Your task to perform on an android device: Open the calendar app, open the side menu, and click the "Day" option Image 0: 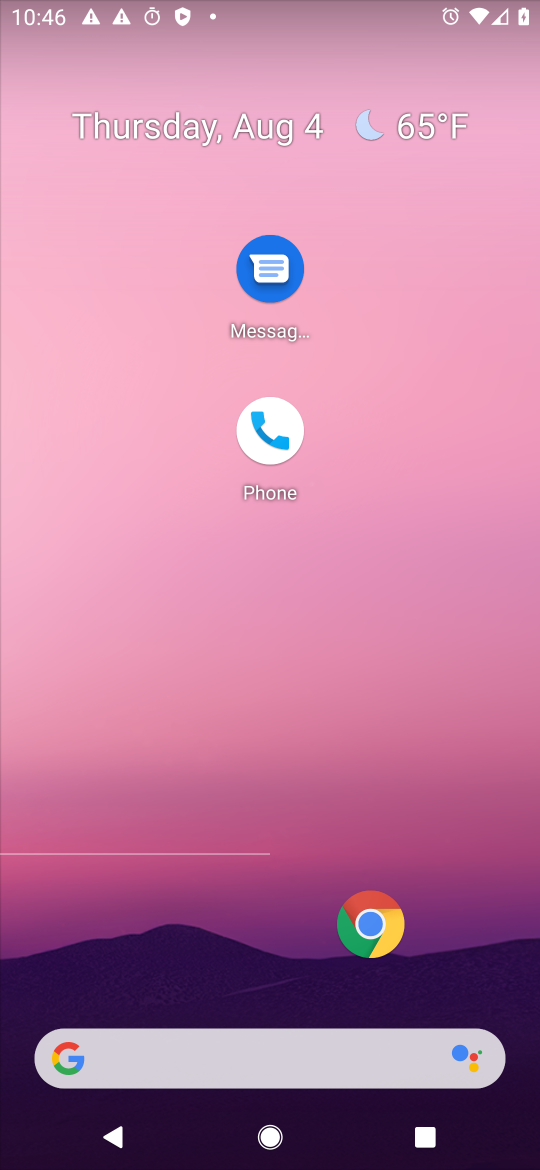
Step 0: drag from (335, 764) to (459, 369)
Your task to perform on an android device: Open the calendar app, open the side menu, and click the "Day" option Image 1: 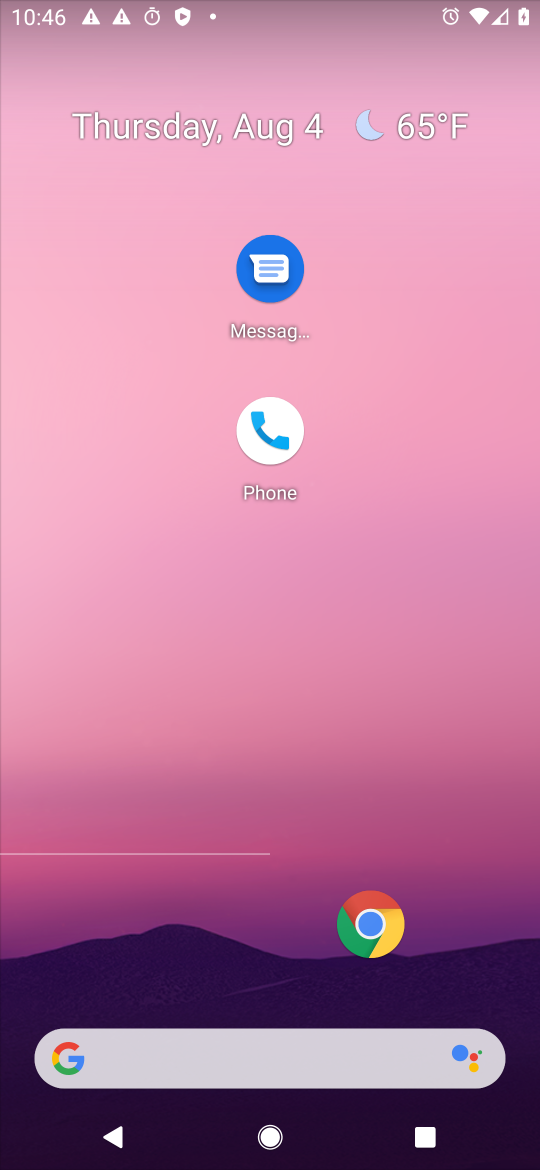
Step 1: click (349, 549)
Your task to perform on an android device: Open the calendar app, open the side menu, and click the "Day" option Image 2: 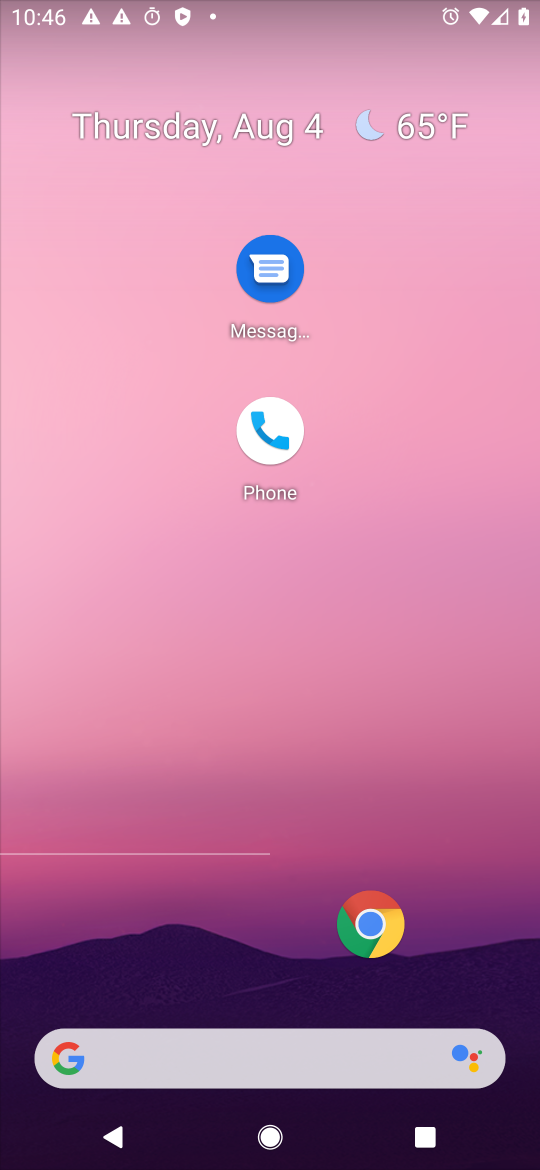
Step 2: drag from (286, 698) to (296, 338)
Your task to perform on an android device: Open the calendar app, open the side menu, and click the "Day" option Image 3: 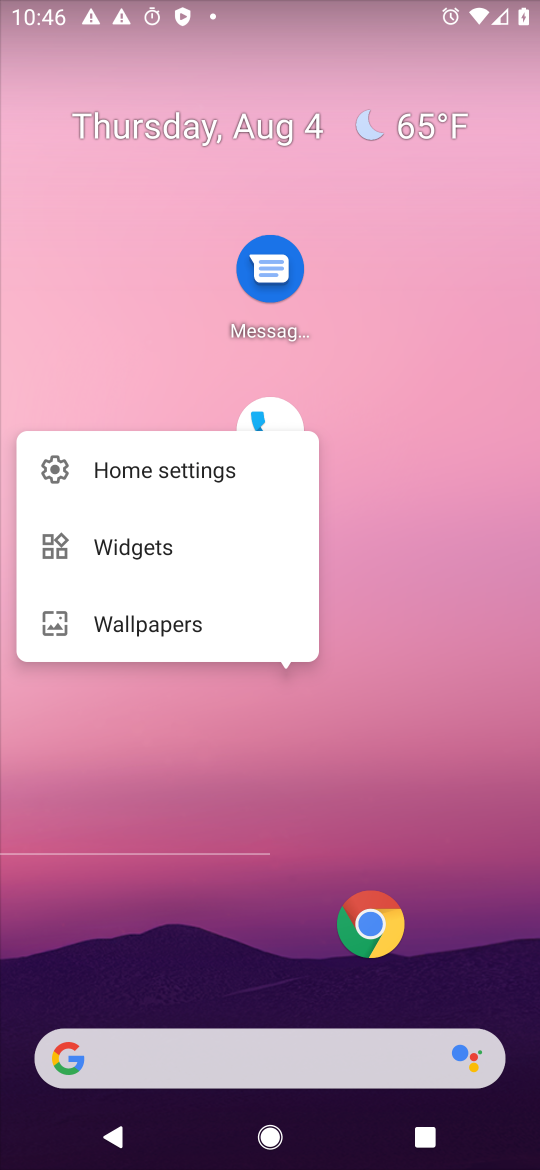
Step 3: click (417, 264)
Your task to perform on an android device: Open the calendar app, open the side menu, and click the "Day" option Image 4: 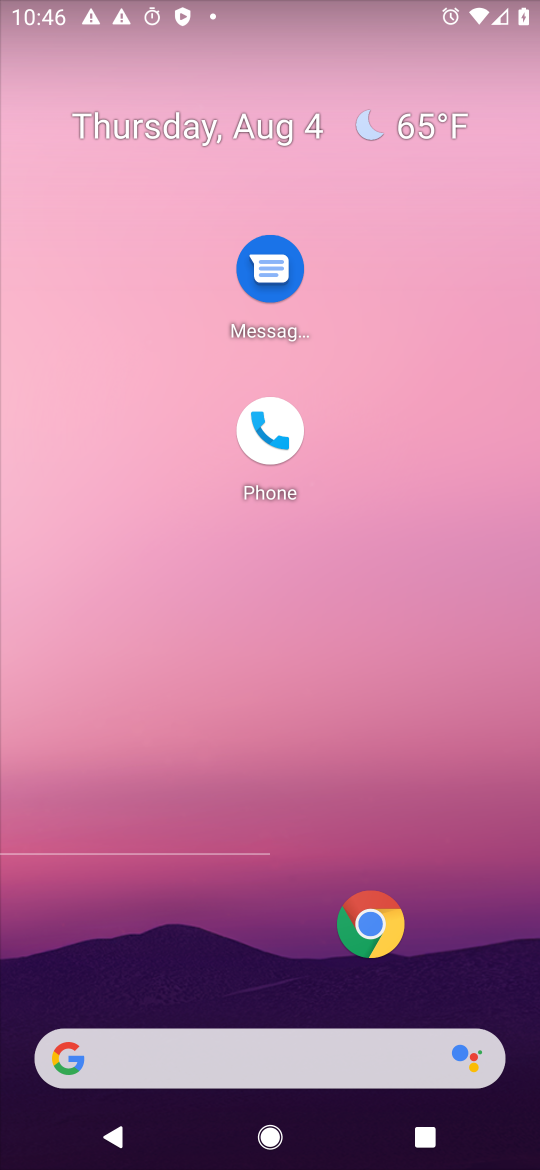
Step 4: drag from (203, 953) to (326, 156)
Your task to perform on an android device: Open the calendar app, open the side menu, and click the "Day" option Image 5: 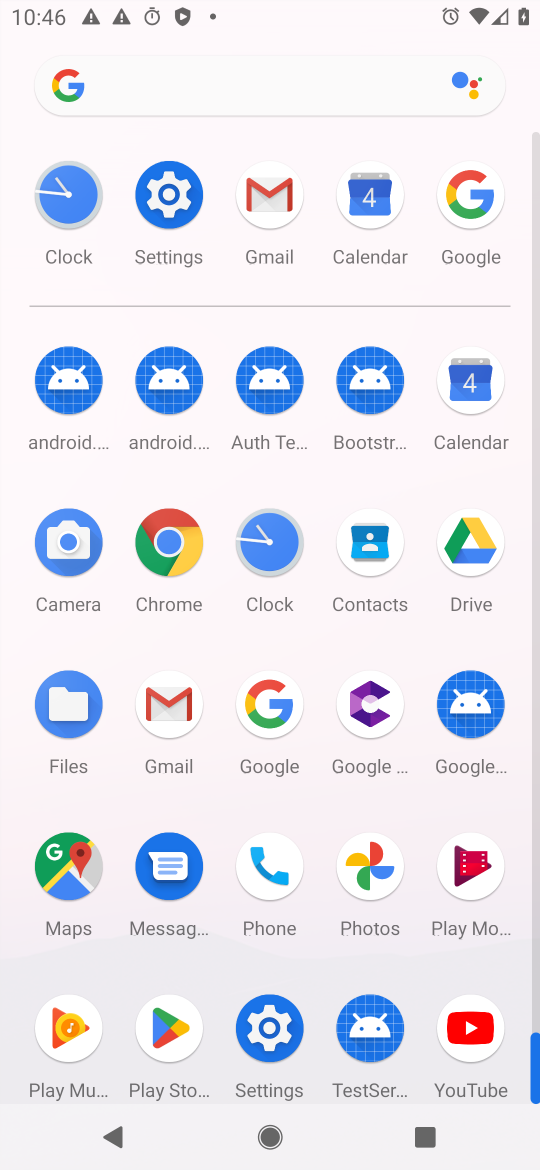
Step 5: click (271, 1017)
Your task to perform on an android device: Open the calendar app, open the side menu, and click the "Day" option Image 6: 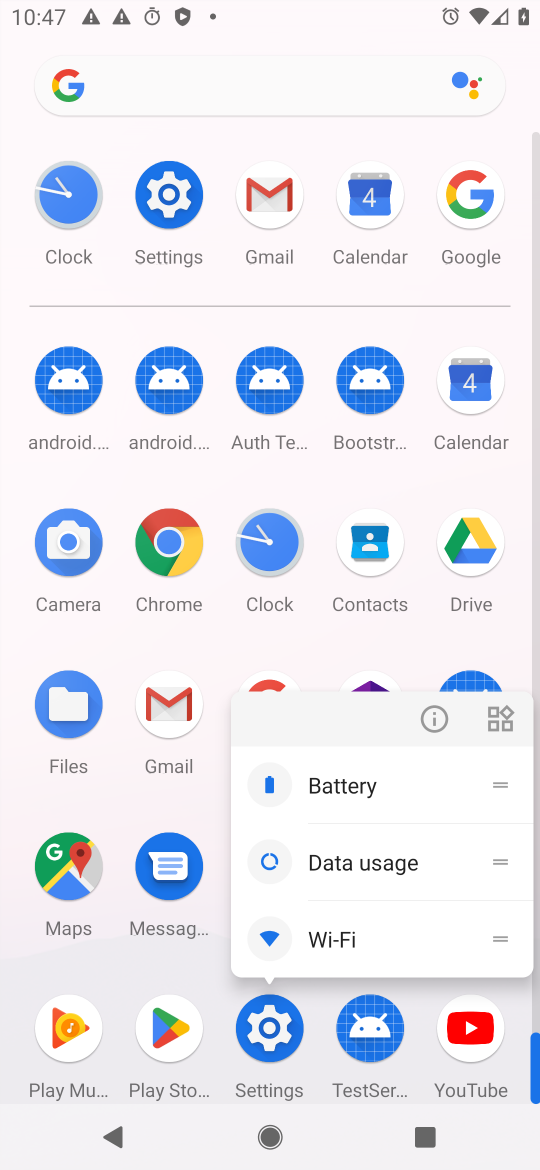
Step 6: click (439, 719)
Your task to perform on an android device: Open the calendar app, open the side menu, and click the "Day" option Image 7: 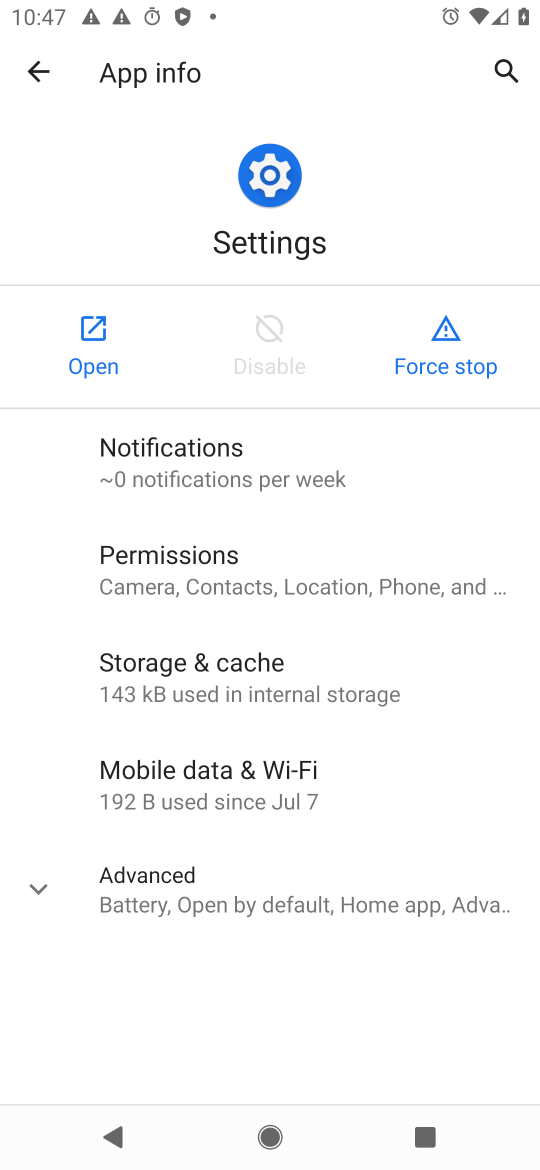
Step 7: click (92, 335)
Your task to perform on an android device: Open the calendar app, open the side menu, and click the "Day" option Image 8: 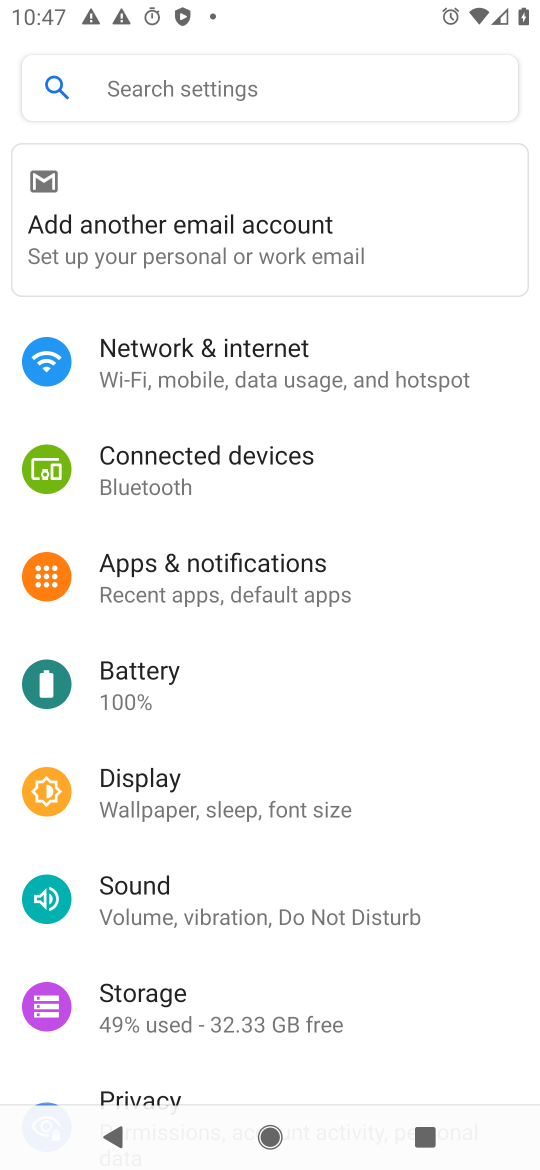
Step 8: press home button
Your task to perform on an android device: Open the calendar app, open the side menu, and click the "Day" option Image 9: 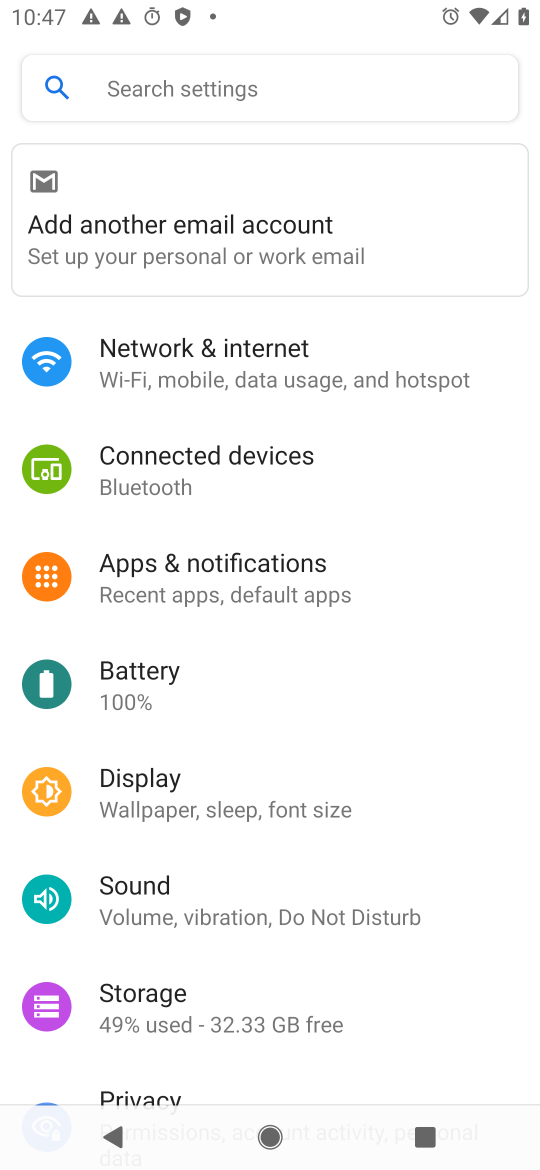
Step 9: drag from (269, 742) to (433, 180)
Your task to perform on an android device: Open the calendar app, open the side menu, and click the "Day" option Image 10: 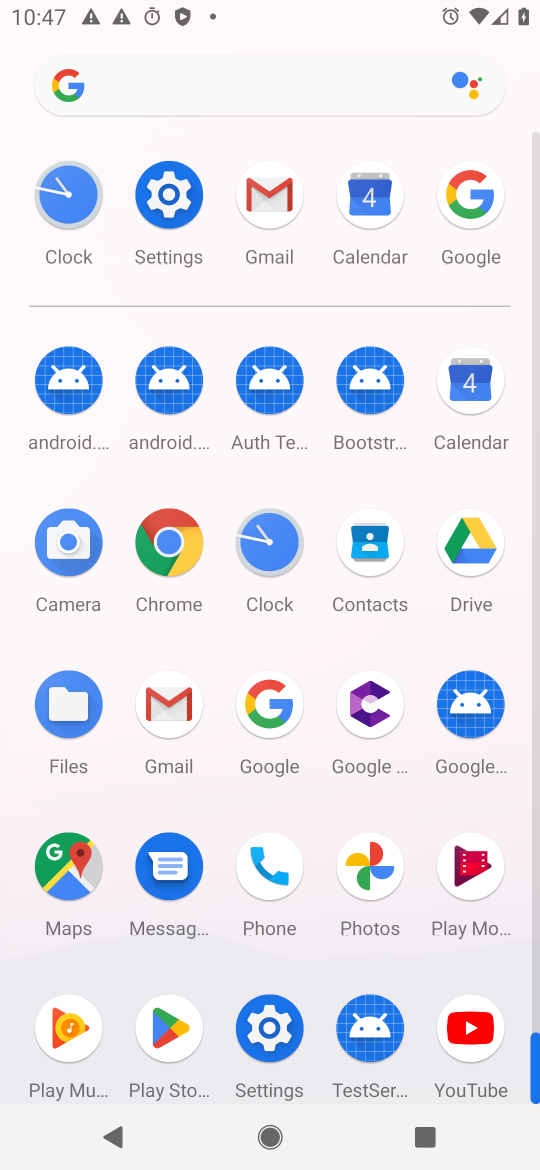
Step 10: click (470, 376)
Your task to perform on an android device: Open the calendar app, open the side menu, and click the "Day" option Image 11: 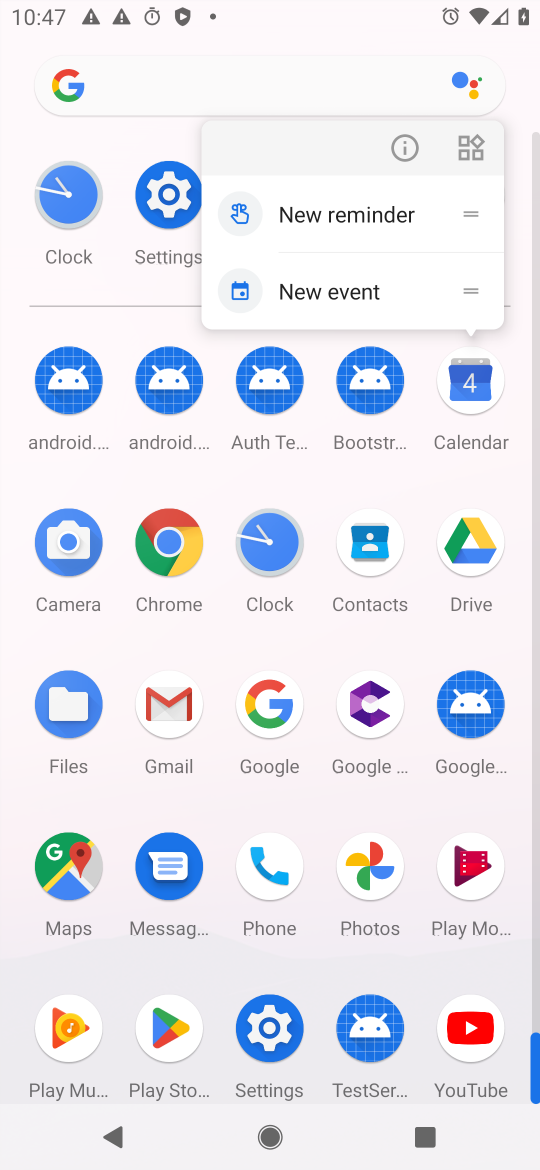
Step 11: click (401, 132)
Your task to perform on an android device: Open the calendar app, open the side menu, and click the "Day" option Image 12: 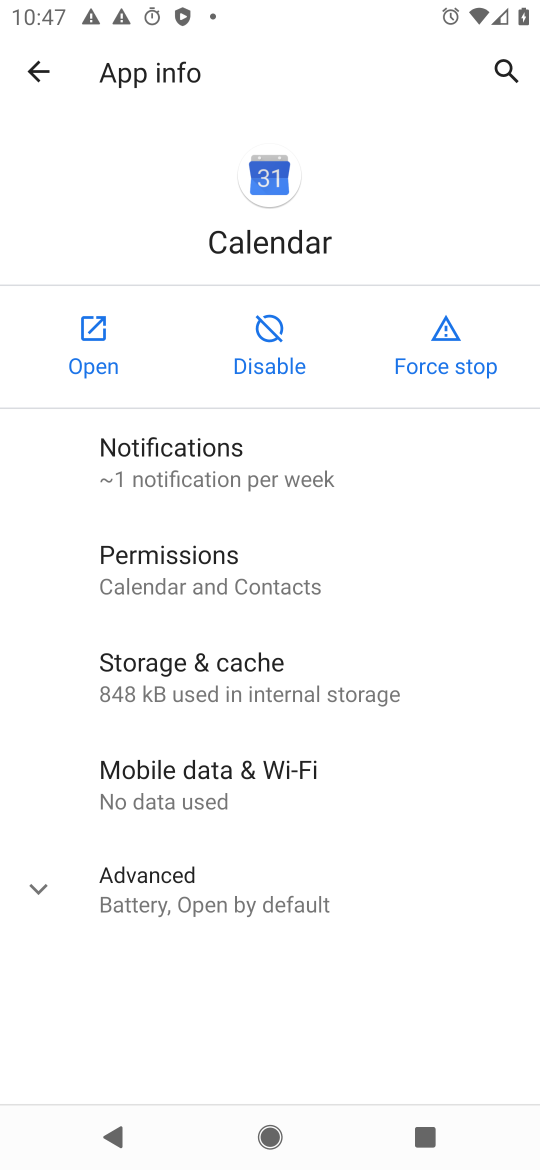
Step 12: click (92, 314)
Your task to perform on an android device: Open the calendar app, open the side menu, and click the "Day" option Image 13: 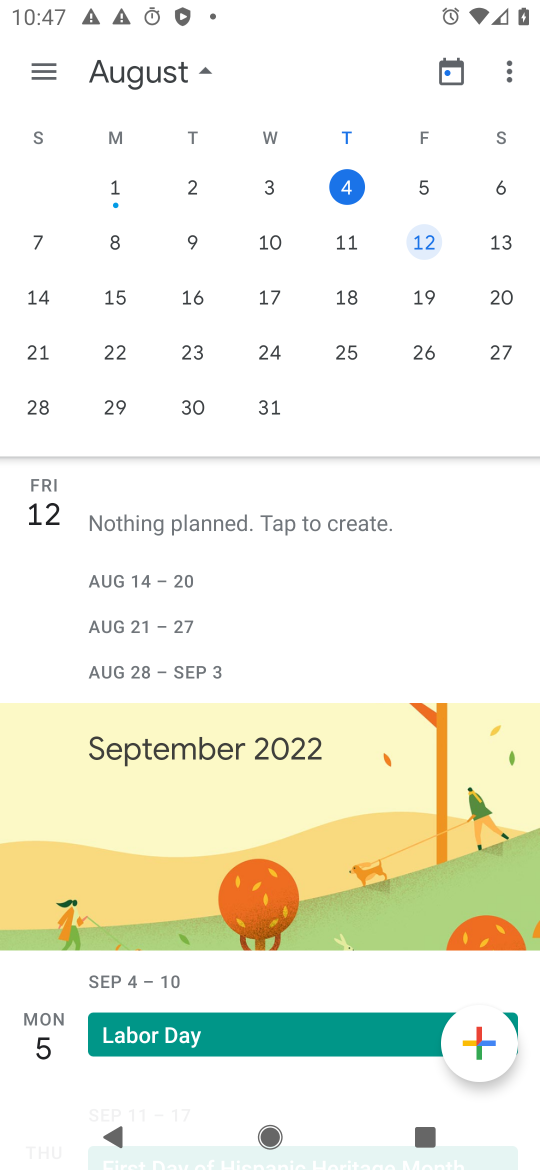
Step 13: click (41, 67)
Your task to perform on an android device: Open the calendar app, open the side menu, and click the "Day" option Image 14: 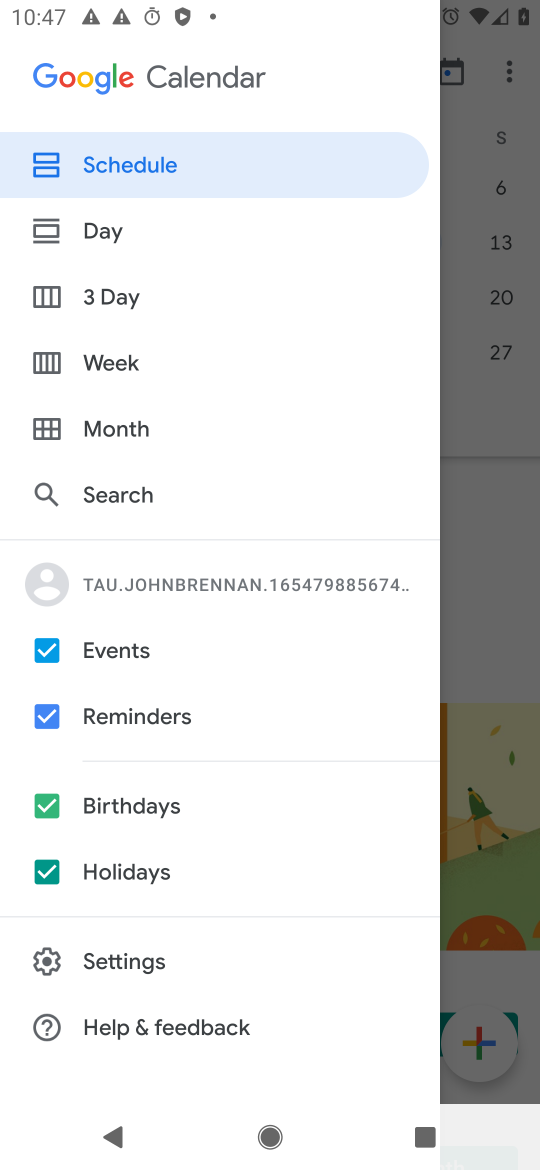
Step 14: click (91, 227)
Your task to perform on an android device: Open the calendar app, open the side menu, and click the "Day" option Image 15: 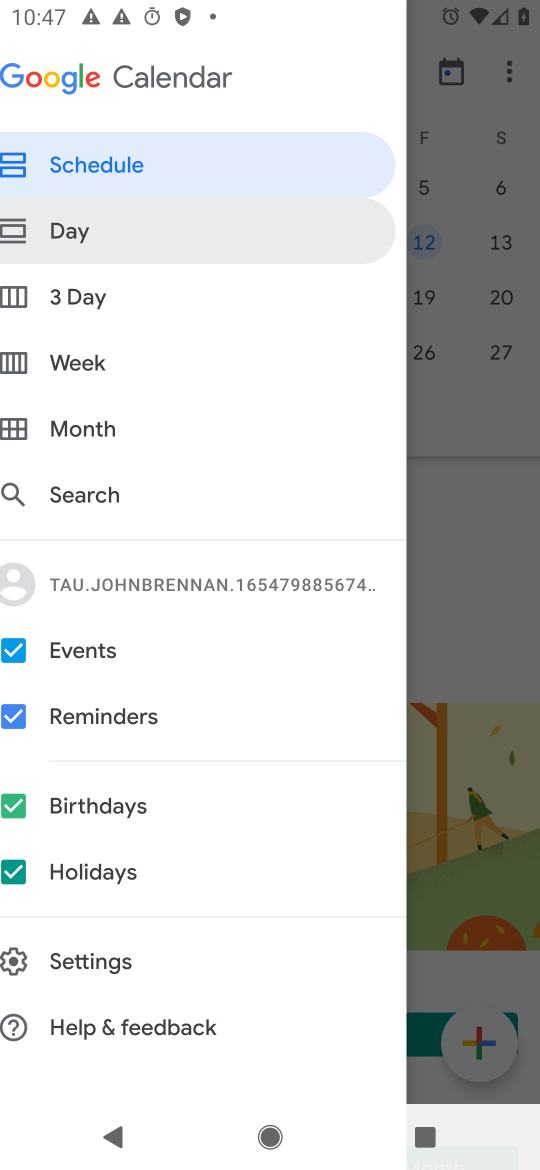
Step 15: task complete